Your task to perform on an android device: Open Chrome and go to settings Image 0: 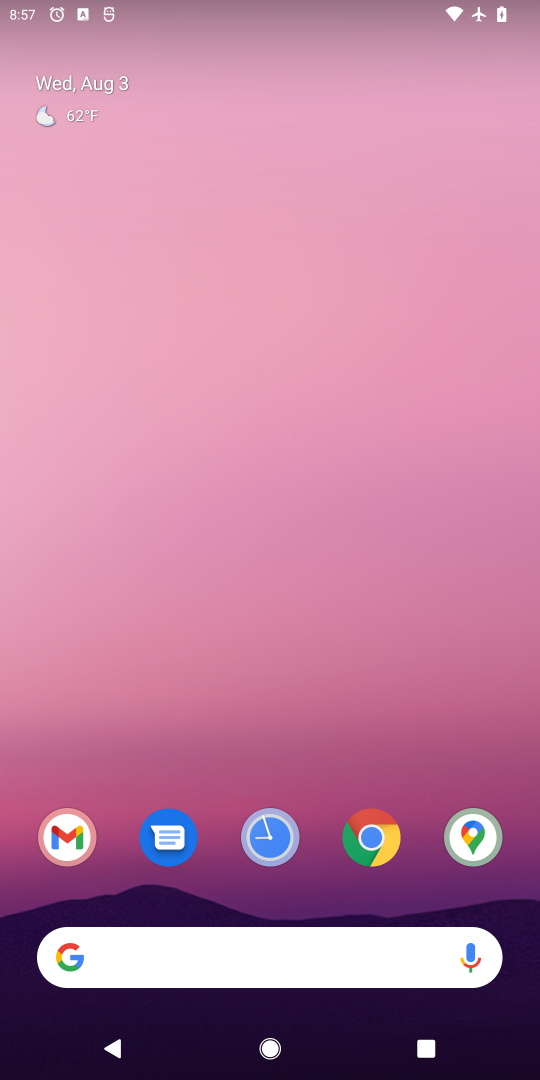
Step 0: press home button
Your task to perform on an android device: Open Chrome and go to settings Image 1: 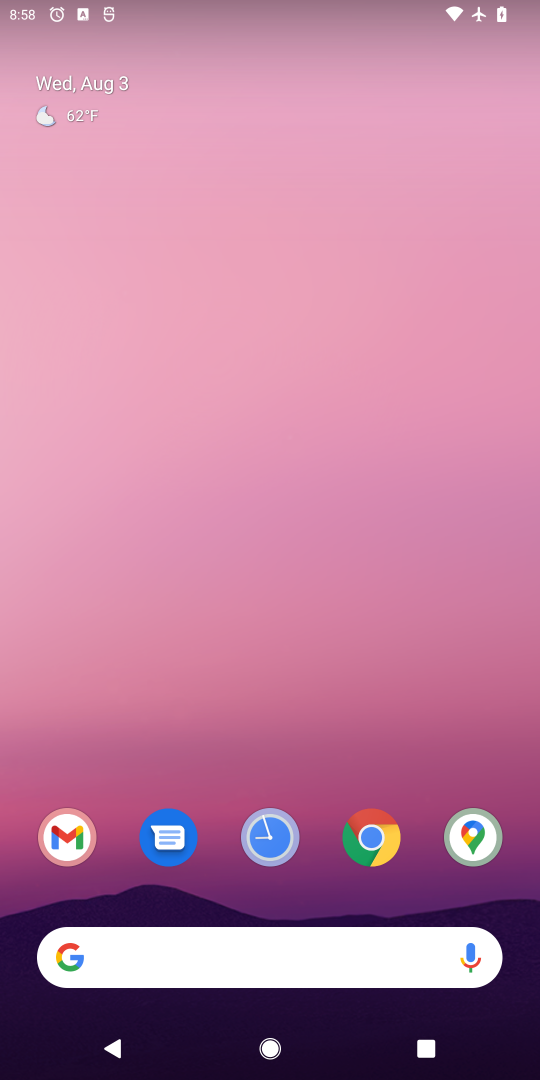
Step 1: click (360, 825)
Your task to perform on an android device: Open Chrome and go to settings Image 2: 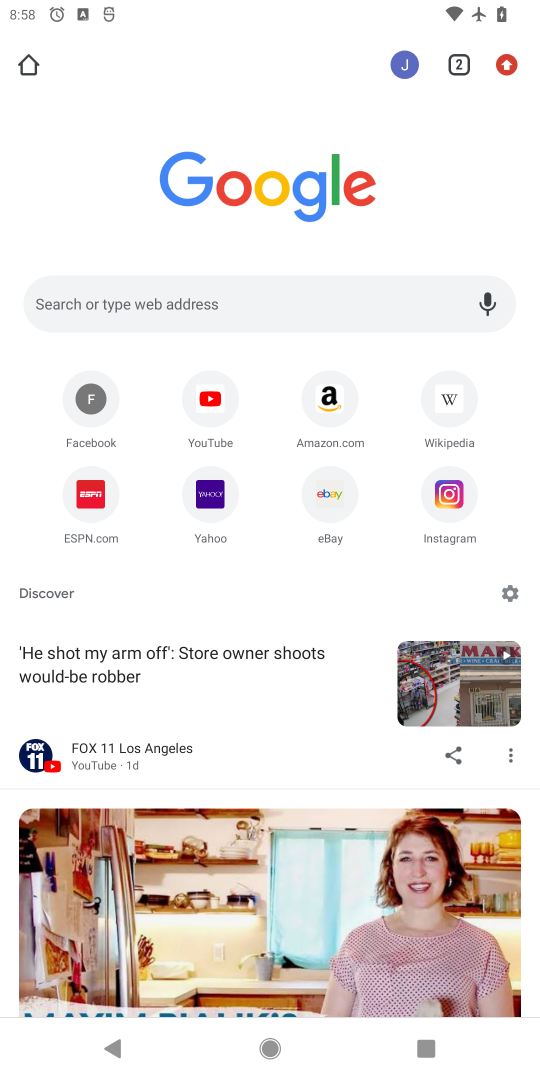
Step 2: task complete